Your task to perform on an android device: find snoozed emails in the gmail app Image 0: 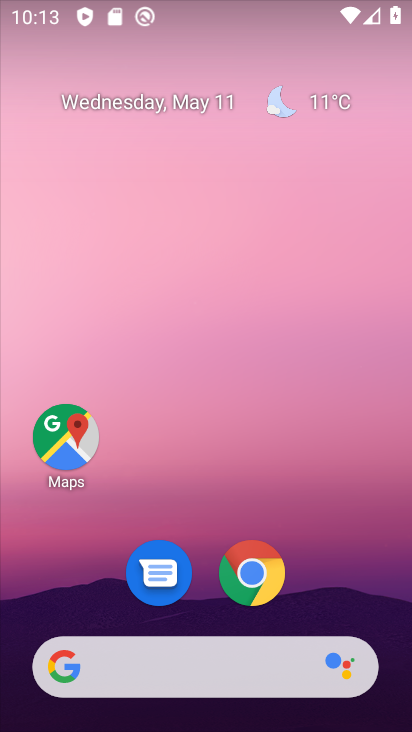
Step 0: drag from (208, 460) to (224, 57)
Your task to perform on an android device: find snoozed emails in the gmail app Image 1: 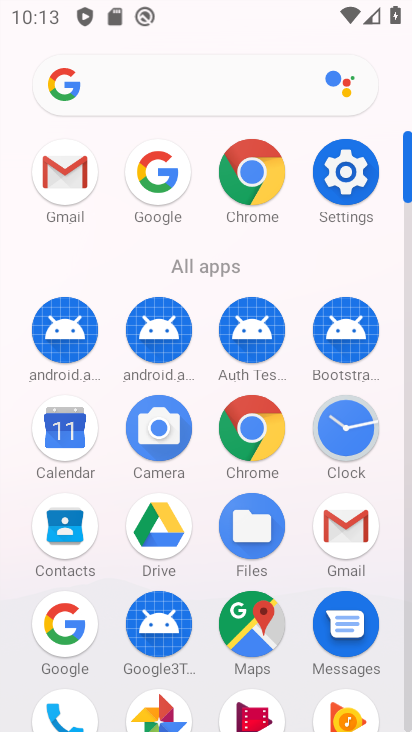
Step 1: click (74, 160)
Your task to perform on an android device: find snoozed emails in the gmail app Image 2: 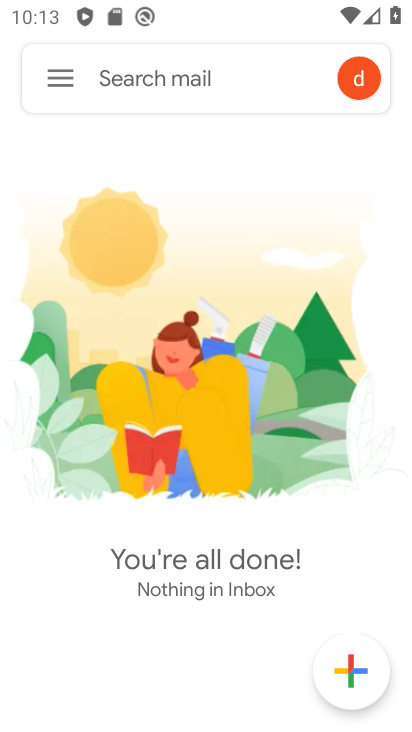
Step 2: click (62, 81)
Your task to perform on an android device: find snoozed emails in the gmail app Image 3: 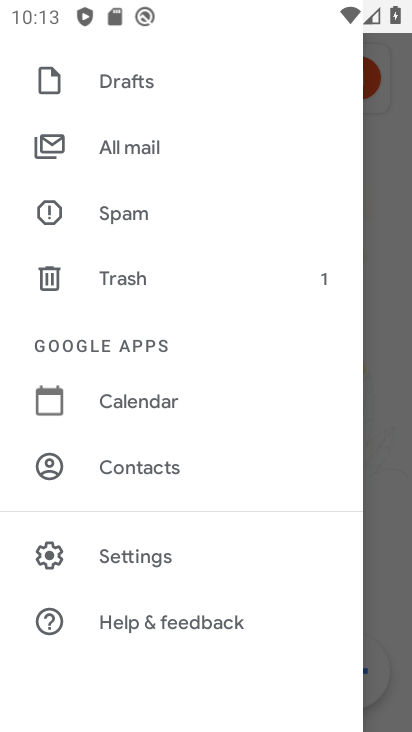
Step 3: drag from (191, 127) to (200, 651)
Your task to perform on an android device: find snoozed emails in the gmail app Image 4: 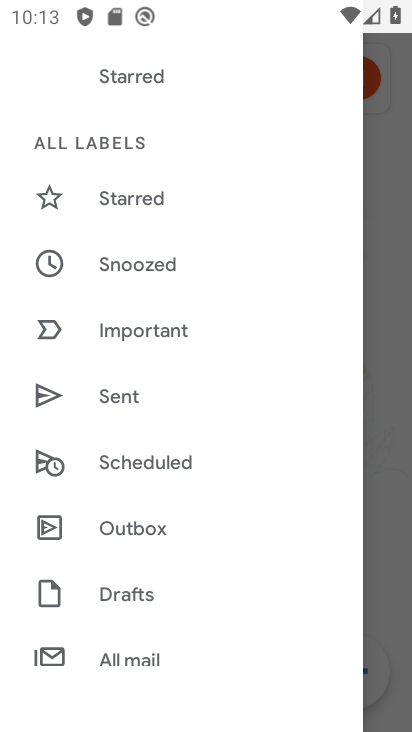
Step 4: click (172, 274)
Your task to perform on an android device: find snoozed emails in the gmail app Image 5: 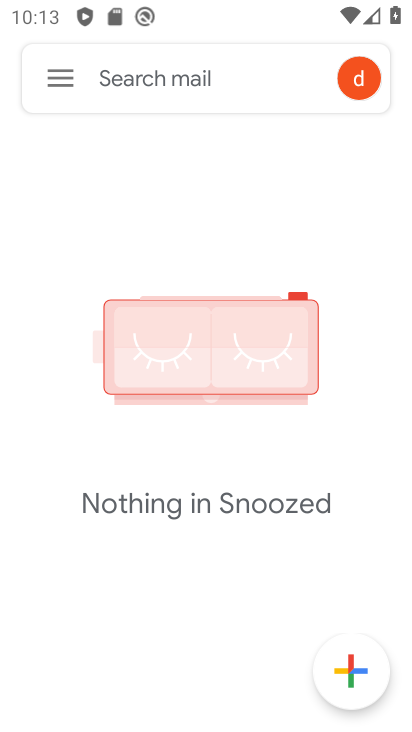
Step 5: task complete